Your task to perform on an android device: Open Wikipedia Image 0: 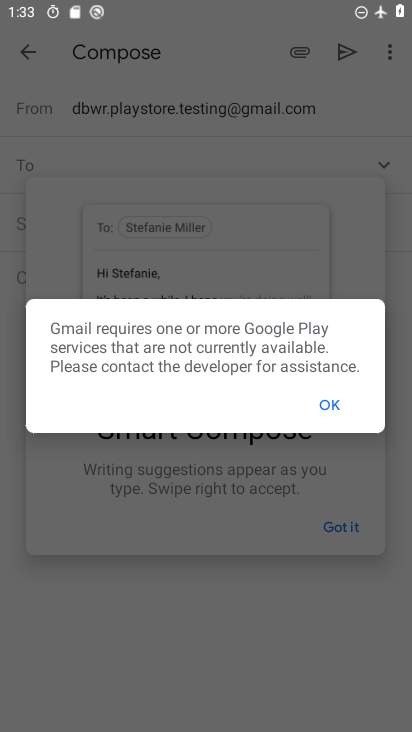
Step 0: press home button
Your task to perform on an android device: Open Wikipedia Image 1: 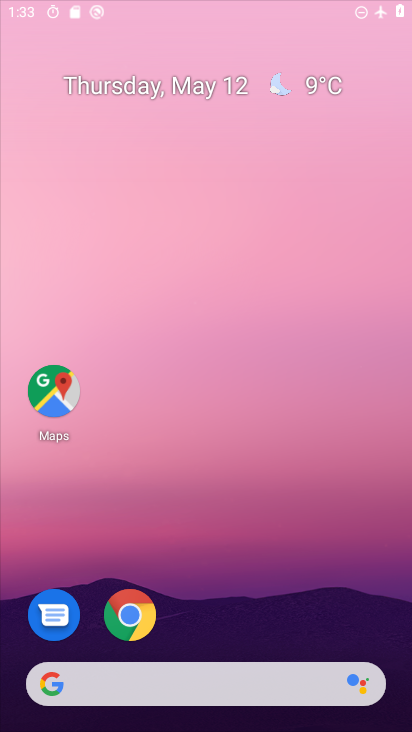
Step 1: drag from (258, 7) to (227, 501)
Your task to perform on an android device: Open Wikipedia Image 2: 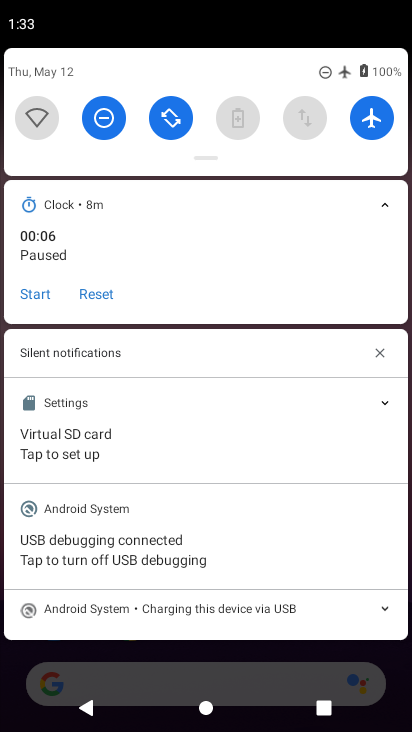
Step 2: click (379, 116)
Your task to perform on an android device: Open Wikipedia Image 3: 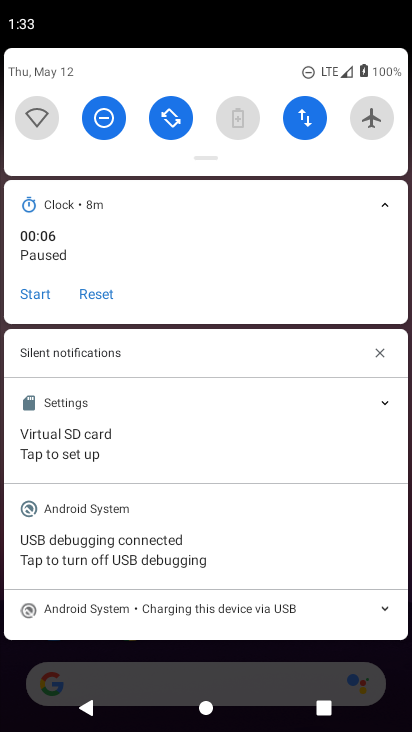
Step 3: task complete